Your task to perform on an android device: toggle priority inbox in the gmail app Image 0: 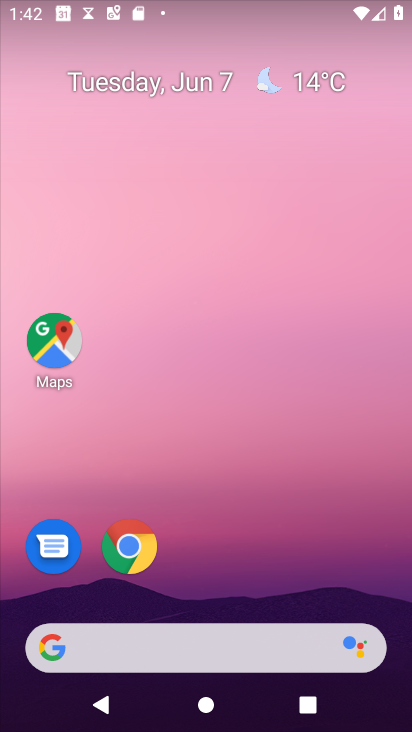
Step 0: press home button
Your task to perform on an android device: toggle priority inbox in the gmail app Image 1: 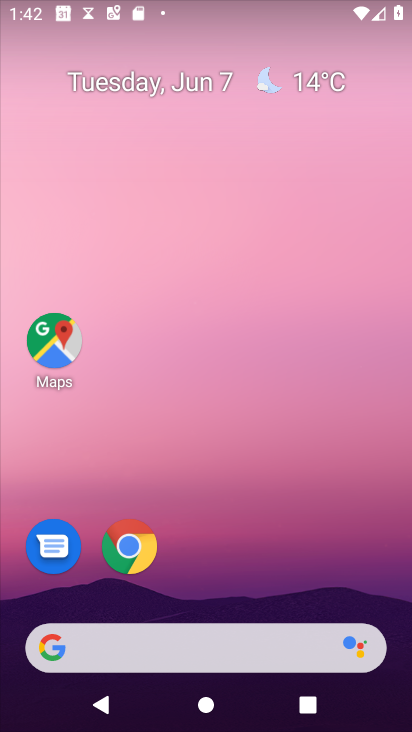
Step 1: drag from (267, 569) to (291, 111)
Your task to perform on an android device: toggle priority inbox in the gmail app Image 2: 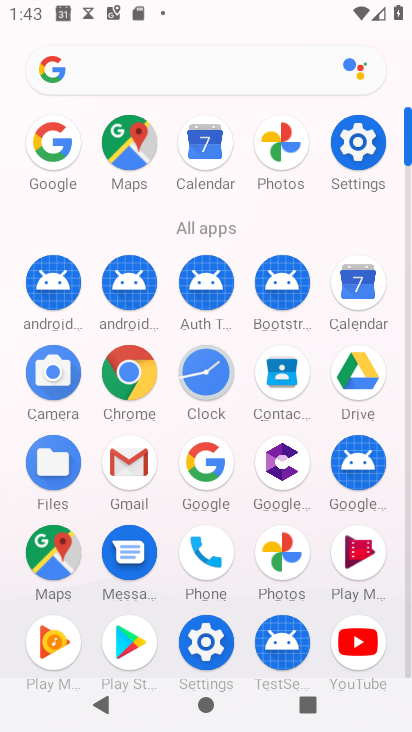
Step 2: click (141, 462)
Your task to perform on an android device: toggle priority inbox in the gmail app Image 3: 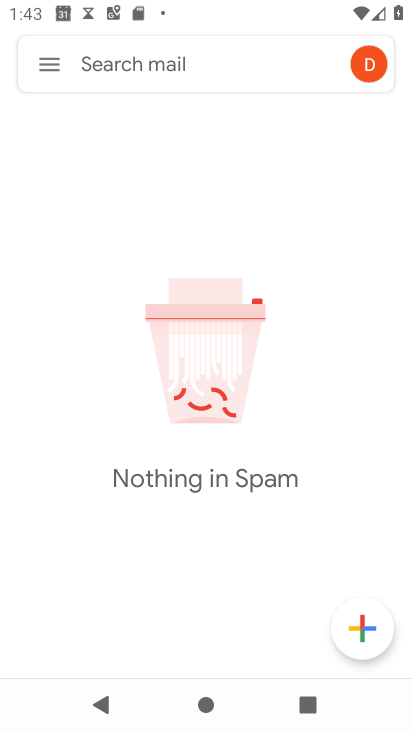
Step 3: click (42, 61)
Your task to perform on an android device: toggle priority inbox in the gmail app Image 4: 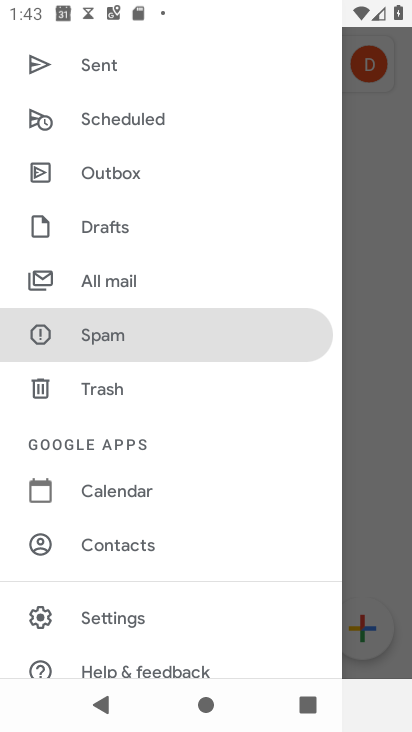
Step 4: click (101, 612)
Your task to perform on an android device: toggle priority inbox in the gmail app Image 5: 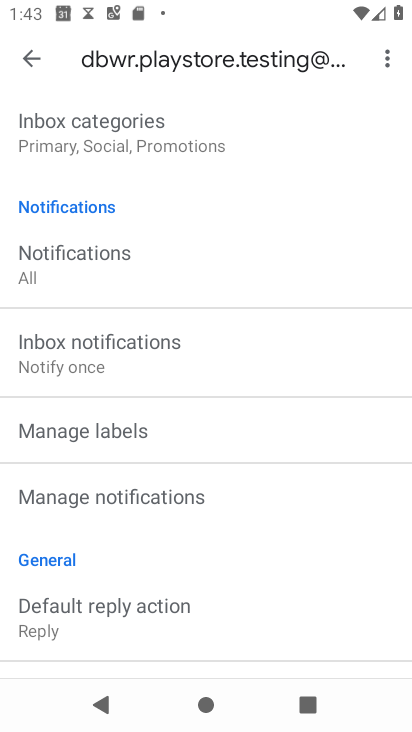
Step 5: drag from (314, 127) to (290, 322)
Your task to perform on an android device: toggle priority inbox in the gmail app Image 6: 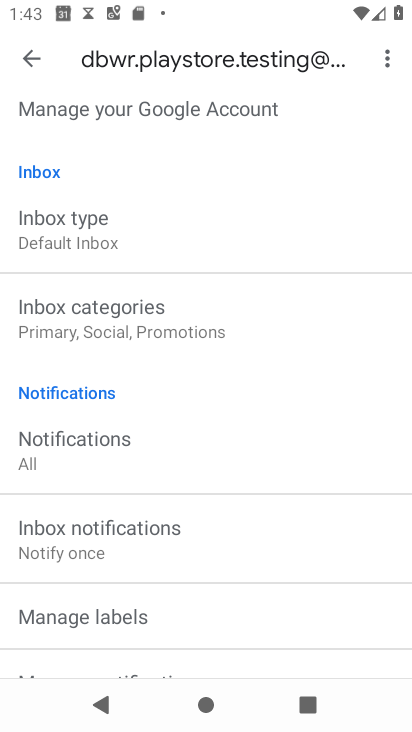
Step 6: click (100, 230)
Your task to perform on an android device: toggle priority inbox in the gmail app Image 7: 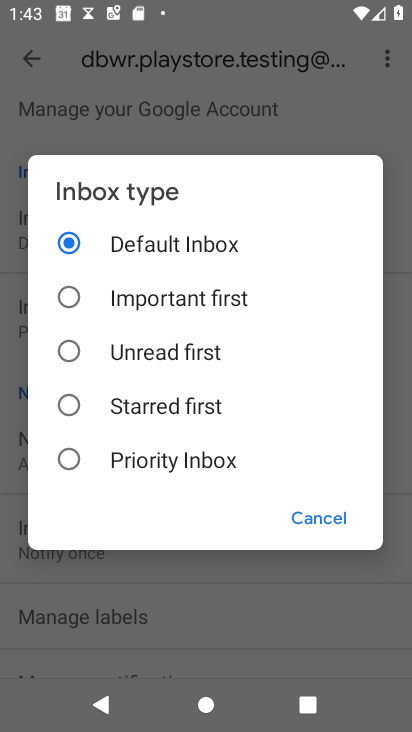
Step 7: task complete